Your task to perform on an android device: snooze an email in the gmail app Image 0: 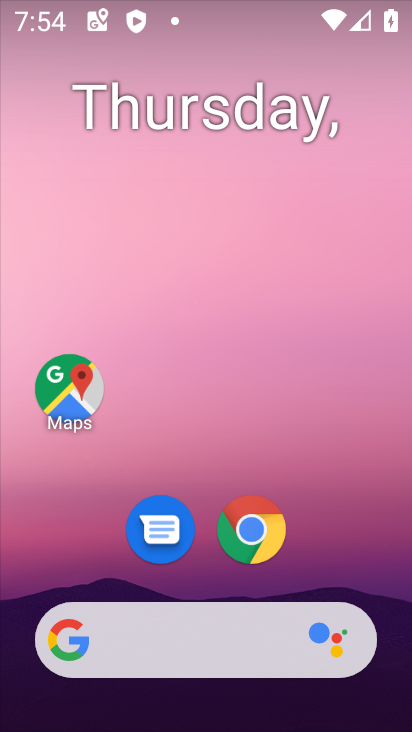
Step 0: drag from (170, 728) to (135, 154)
Your task to perform on an android device: snooze an email in the gmail app Image 1: 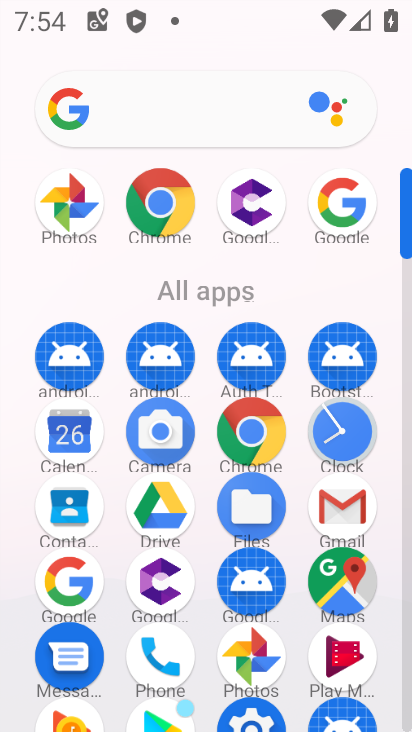
Step 1: click (331, 507)
Your task to perform on an android device: snooze an email in the gmail app Image 2: 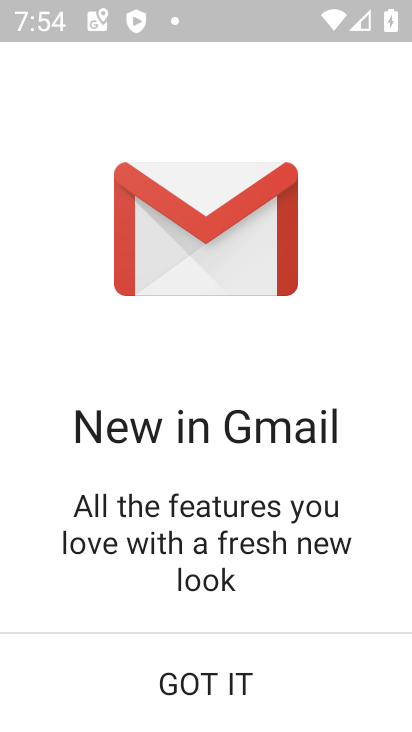
Step 2: click (226, 683)
Your task to perform on an android device: snooze an email in the gmail app Image 3: 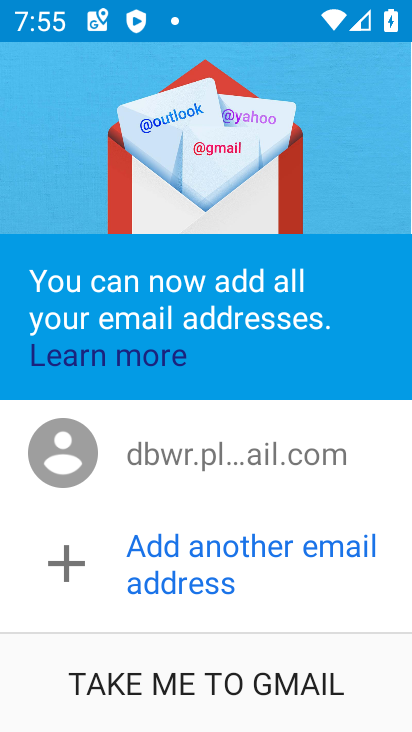
Step 3: click (242, 686)
Your task to perform on an android device: snooze an email in the gmail app Image 4: 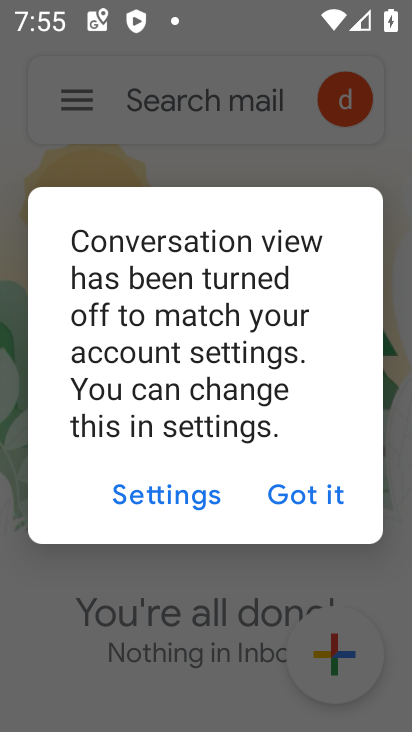
Step 4: click (299, 491)
Your task to perform on an android device: snooze an email in the gmail app Image 5: 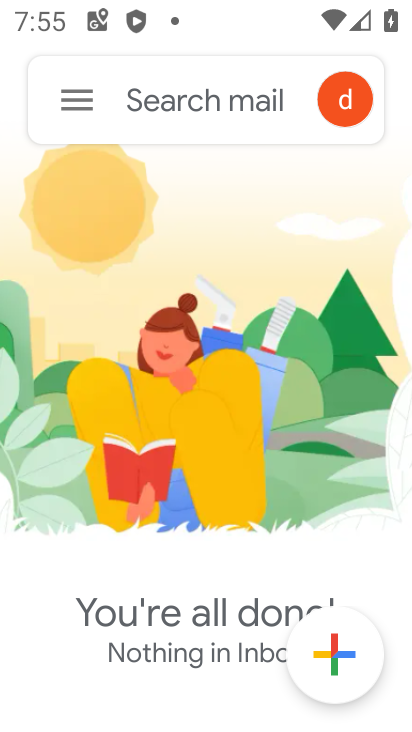
Step 5: task complete